Your task to perform on an android device: Open the Play Movies app and select the watchlist tab. Image 0: 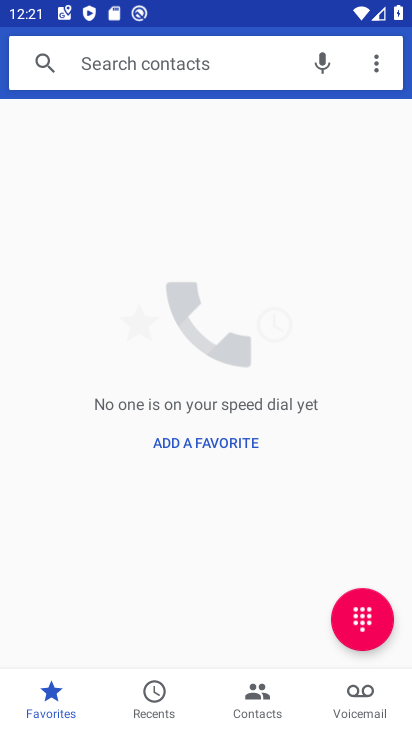
Step 0: press home button
Your task to perform on an android device: Open the Play Movies app and select the watchlist tab. Image 1: 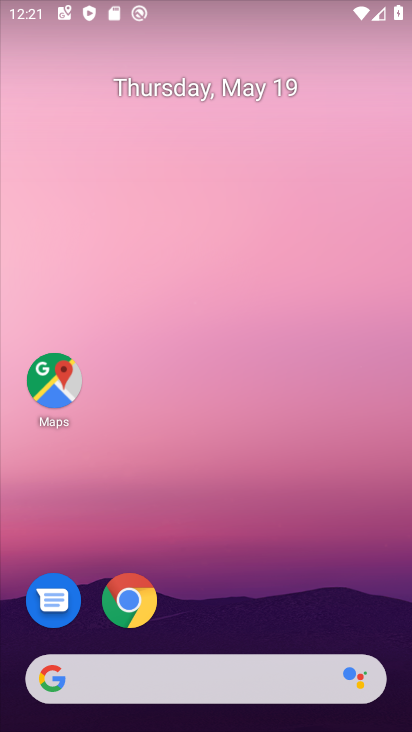
Step 1: drag from (286, 620) to (202, 131)
Your task to perform on an android device: Open the Play Movies app and select the watchlist tab. Image 2: 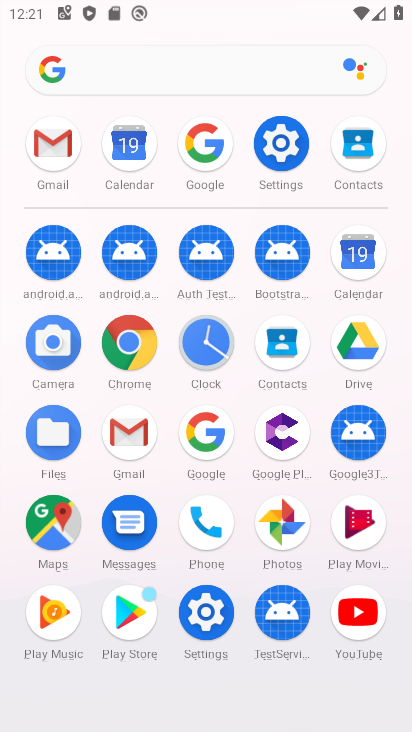
Step 2: click (373, 536)
Your task to perform on an android device: Open the Play Movies app and select the watchlist tab. Image 3: 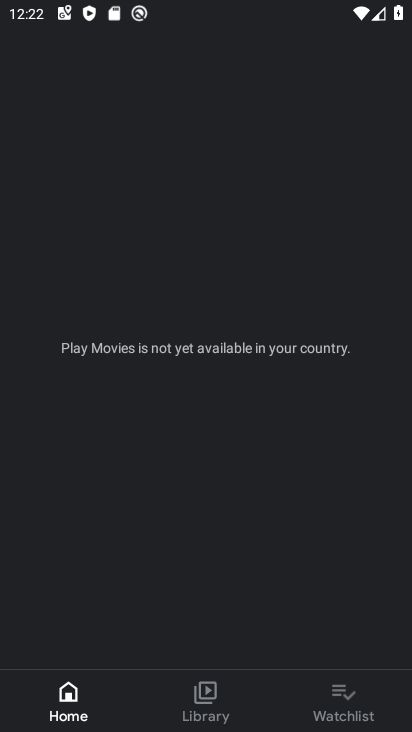
Step 3: click (342, 705)
Your task to perform on an android device: Open the Play Movies app and select the watchlist tab. Image 4: 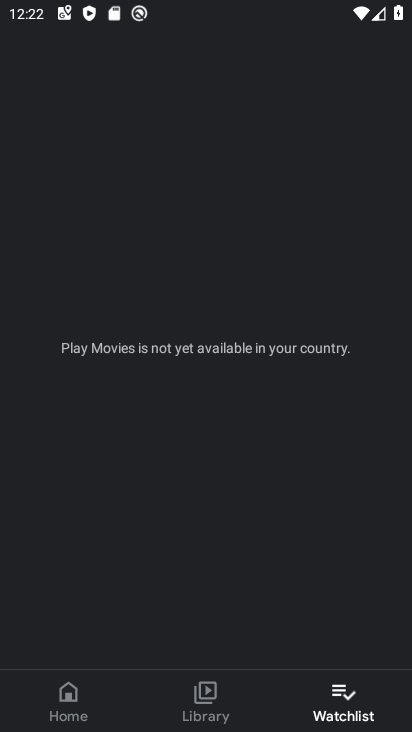
Step 4: task complete